Your task to perform on an android device: Open Google Chrome and click the shortcut for Amazon.com Image 0: 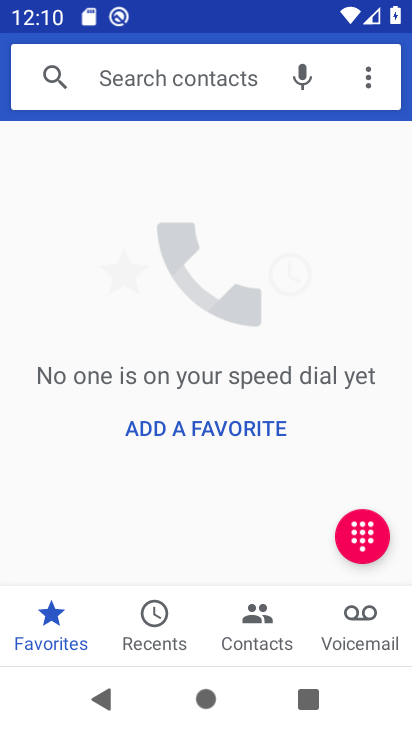
Step 0: press home button
Your task to perform on an android device: Open Google Chrome and click the shortcut for Amazon.com Image 1: 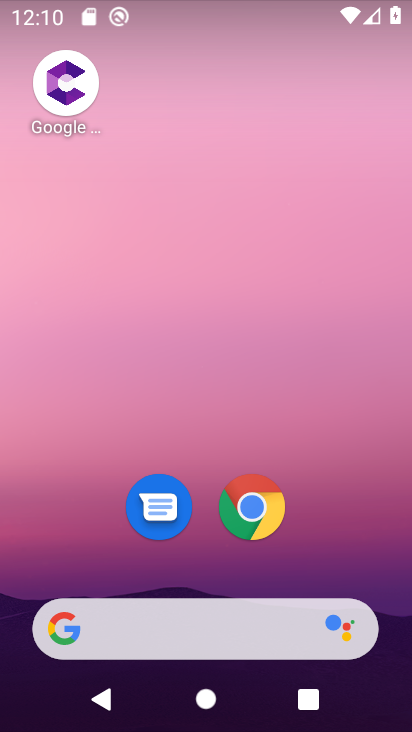
Step 1: click (244, 520)
Your task to perform on an android device: Open Google Chrome and click the shortcut for Amazon.com Image 2: 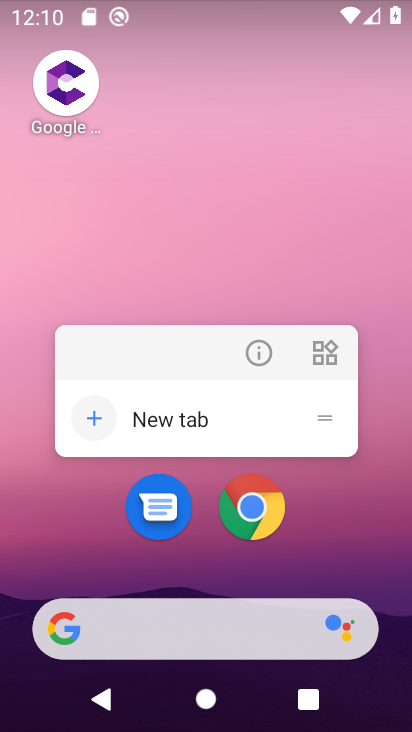
Step 2: click (257, 506)
Your task to perform on an android device: Open Google Chrome and click the shortcut for Amazon.com Image 3: 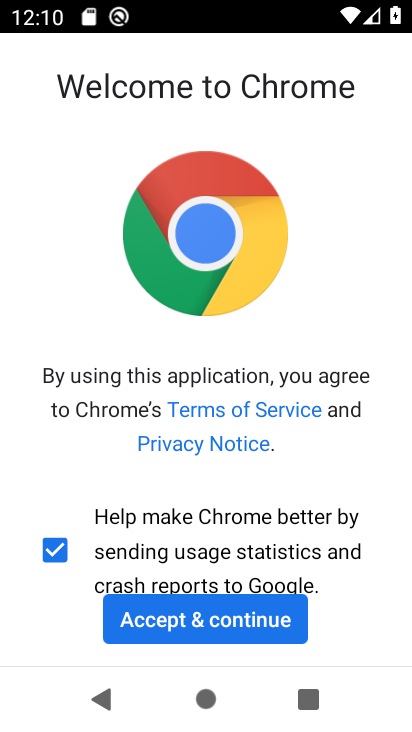
Step 3: click (258, 617)
Your task to perform on an android device: Open Google Chrome and click the shortcut for Amazon.com Image 4: 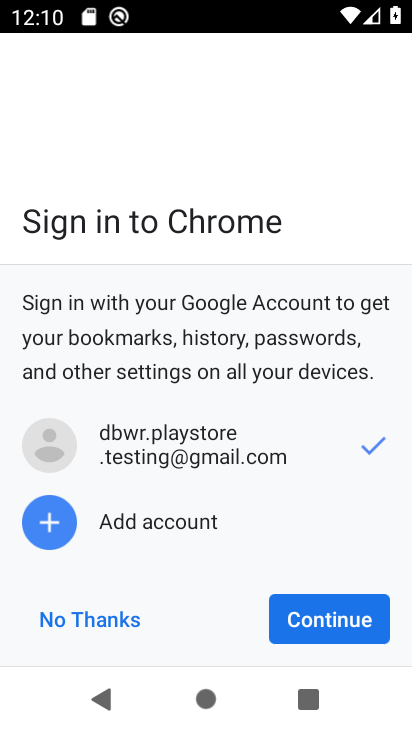
Step 4: click (334, 608)
Your task to perform on an android device: Open Google Chrome and click the shortcut for Amazon.com Image 5: 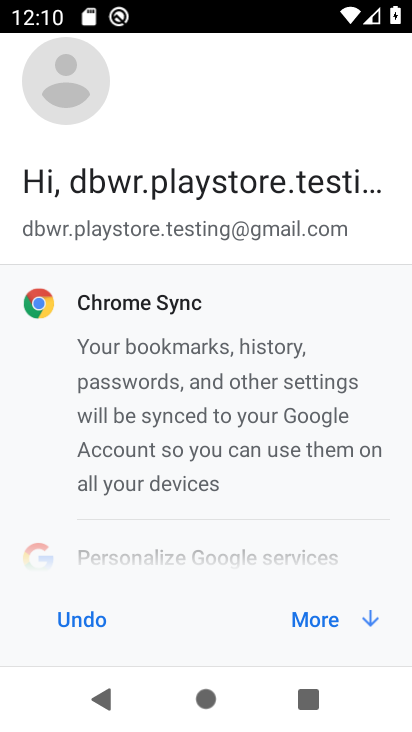
Step 5: click (341, 627)
Your task to perform on an android device: Open Google Chrome and click the shortcut for Amazon.com Image 6: 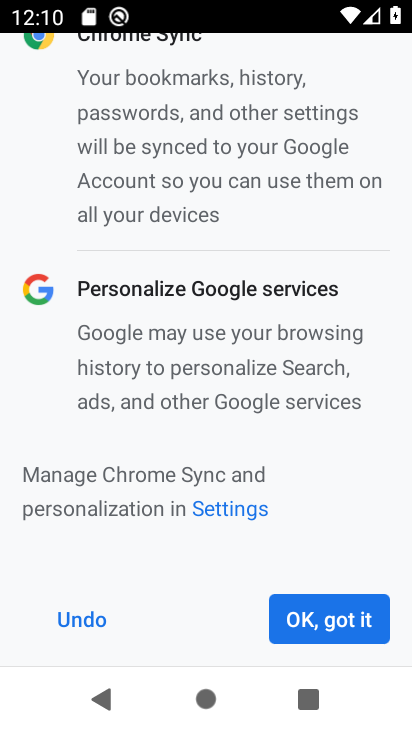
Step 6: click (340, 628)
Your task to perform on an android device: Open Google Chrome and click the shortcut for Amazon.com Image 7: 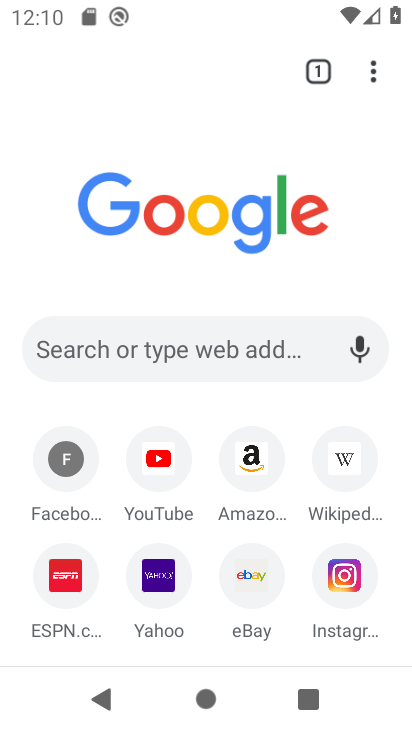
Step 7: click (265, 480)
Your task to perform on an android device: Open Google Chrome and click the shortcut for Amazon.com Image 8: 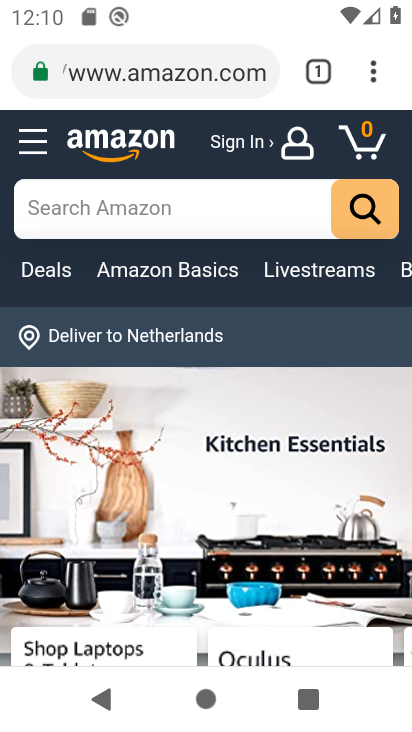
Step 8: task complete